Your task to perform on an android device: Go to notification settings Image 0: 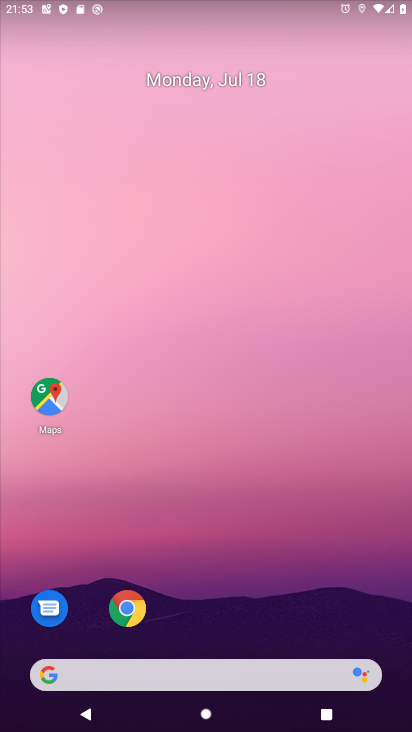
Step 0: drag from (14, 701) to (362, 47)
Your task to perform on an android device: Go to notification settings Image 1: 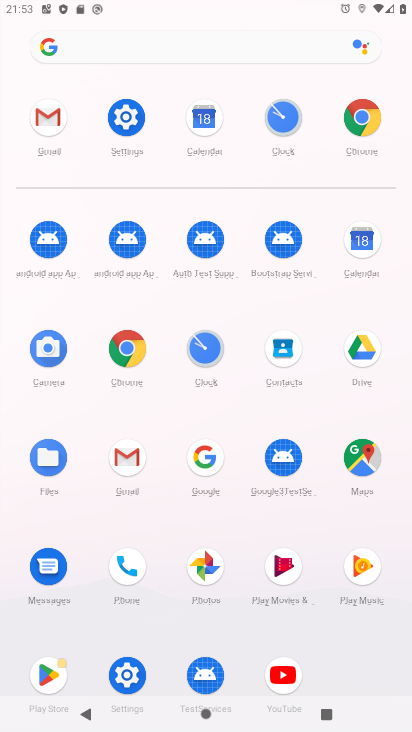
Step 1: click (122, 669)
Your task to perform on an android device: Go to notification settings Image 2: 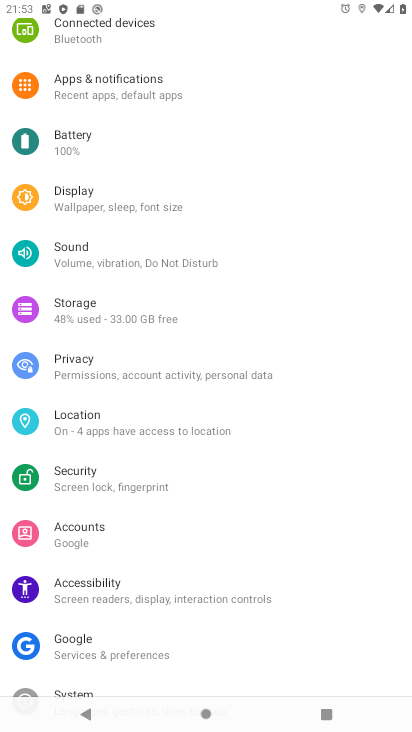
Step 2: click (104, 89)
Your task to perform on an android device: Go to notification settings Image 3: 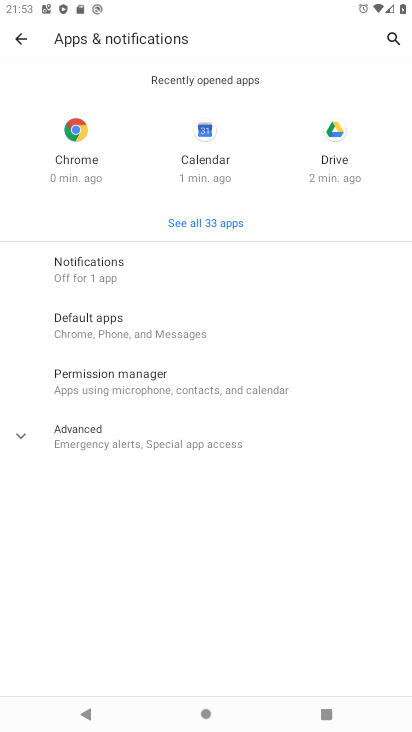
Step 3: task complete